Your task to perform on an android device: toggle notifications settings in the gmail app Image 0: 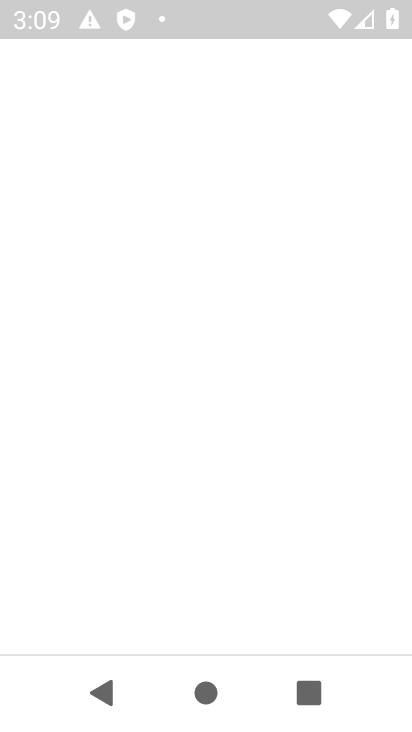
Step 0: press home button
Your task to perform on an android device: toggle notifications settings in the gmail app Image 1: 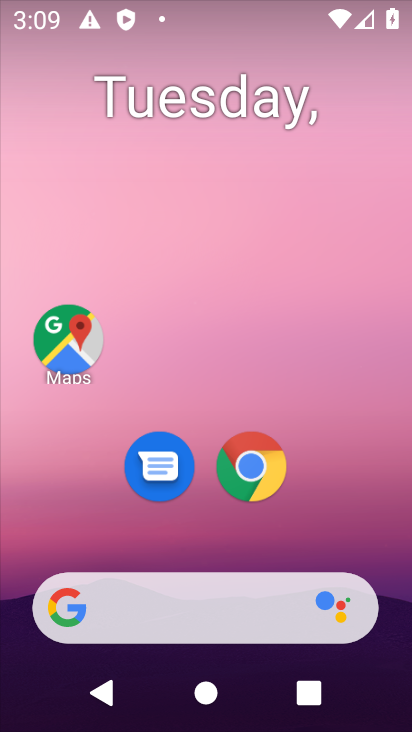
Step 1: drag from (361, 526) to (330, 175)
Your task to perform on an android device: toggle notifications settings in the gmail app Image 2: 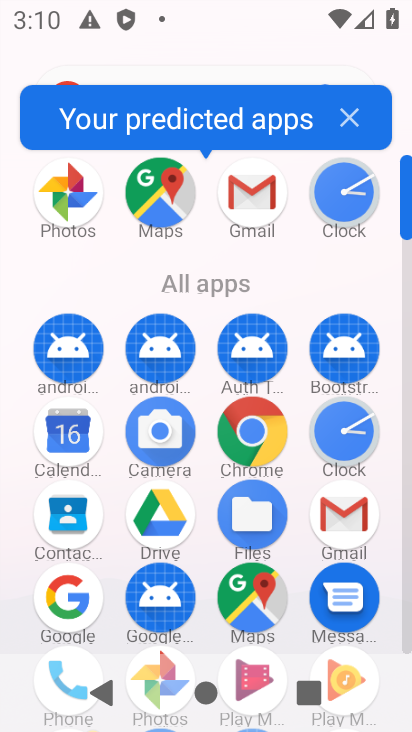
Step 2: drag from (200, 574) to (196, 322)
Your task to perform on an android device: toggle notifications settings in the gmail app Image 3: 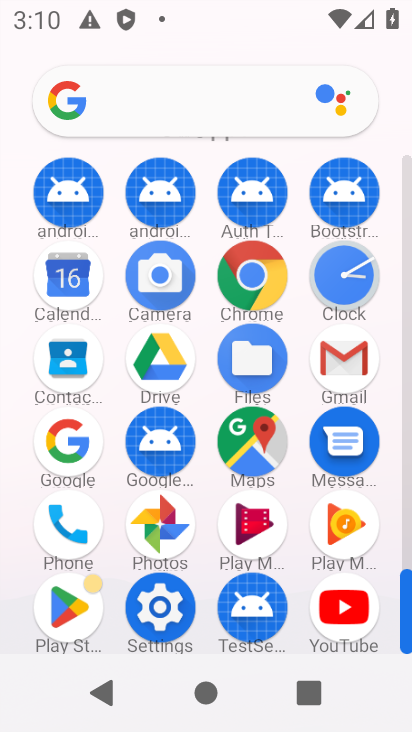
Step 3: click (170, 611)
Your task to perform on an android device: toggle notifications settings in the gmail app Image 4: 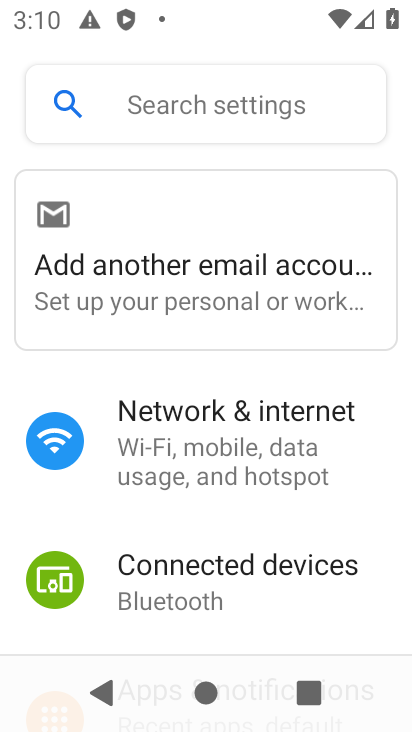
Step 4: press home button
Your task to perform on an android device: toggle notifications settings in the gmail app Image 5: 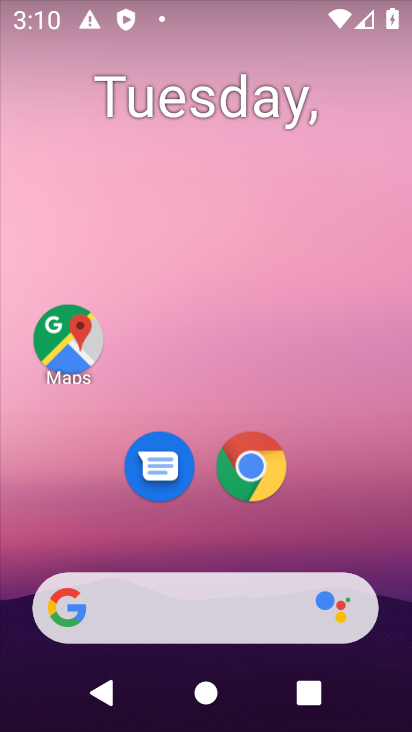
Step 5: drag from (383, 531) to (363, 184)
Your task to perform on an android device: toggle notifications settings in the gmail app Image 6: 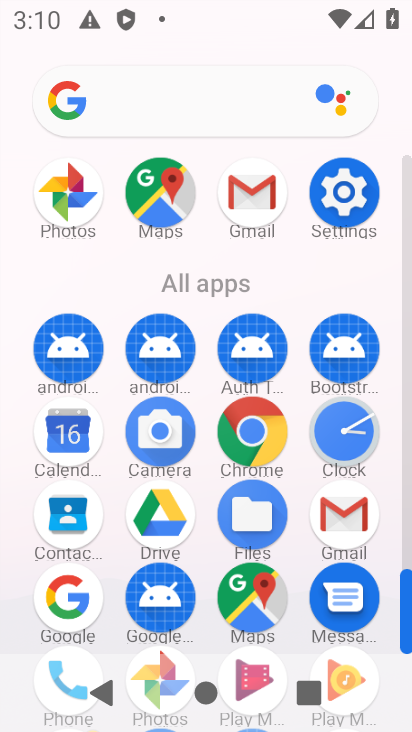
Step 6: click (344, 523)
Your task to perform on an android device: toggle notifications settings in the gmail app Image 7: 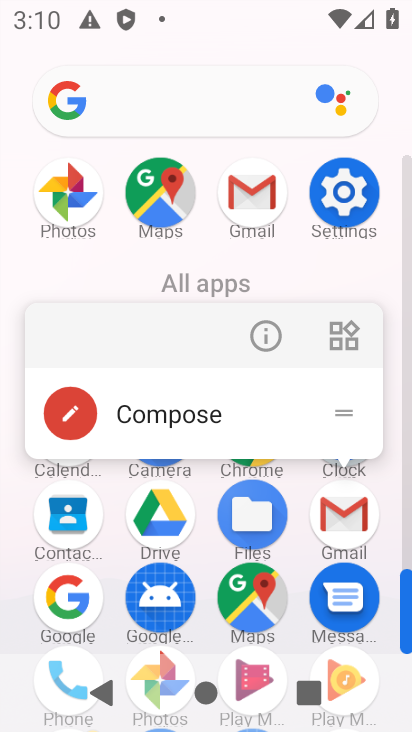
Step 7: click (258, 344)
Your task to perform on an android device: toggle notifications settings in the gmail app Image 8: 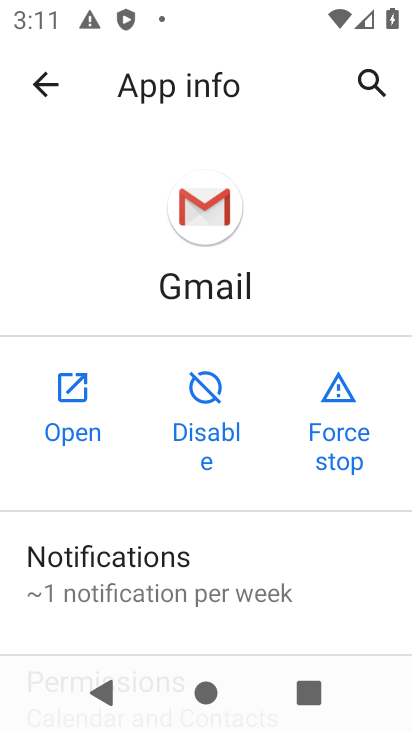
Step 8: click (201, 579)
Your task to perform on an android device: toggle notifications settings in the gmail app Image 9: 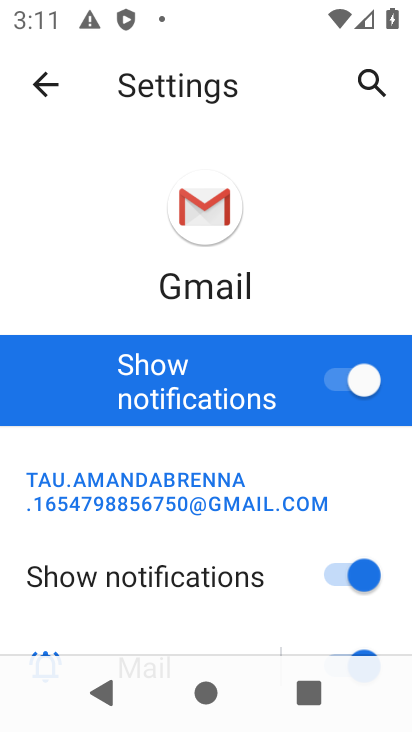
Step 9: click (362, 357)
Your task to perform on an android device: toggle notifications settings in the gmail app Image 10: 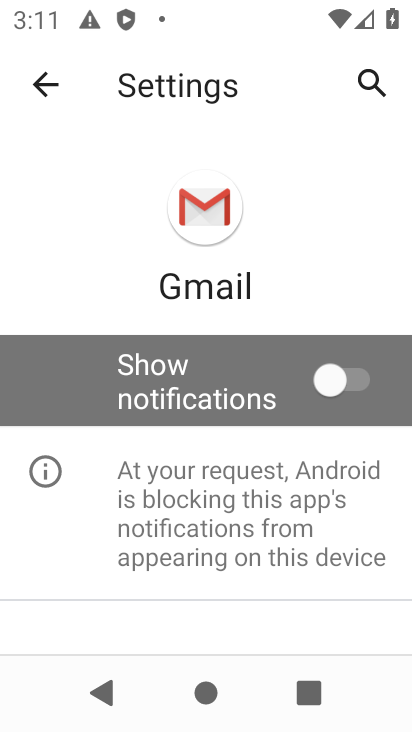
Step 10: task complete